Your task to perform on an android device: Open Yahoo.com Image 0: 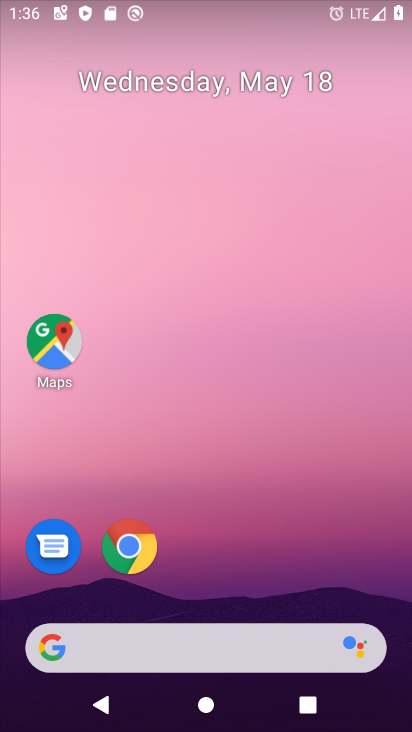
Step 0: drag from (215, 577) to (199, 54)
Your task to perform on an android device: Open Yahoo.com Image 1: 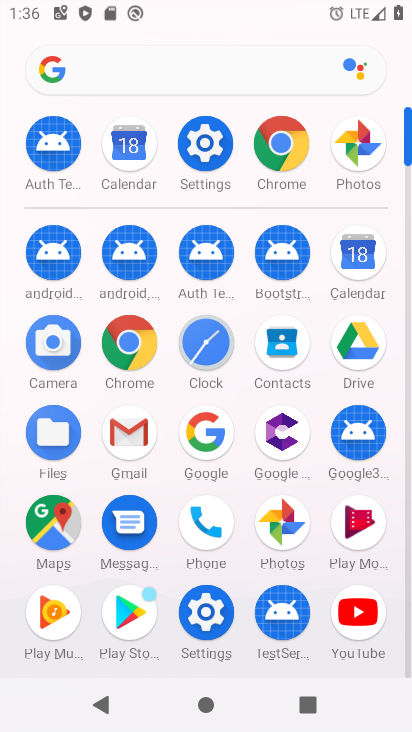
Step 1: click (284, 144)
Your task to perform on an android device: Open Yahoo.com Image 2: 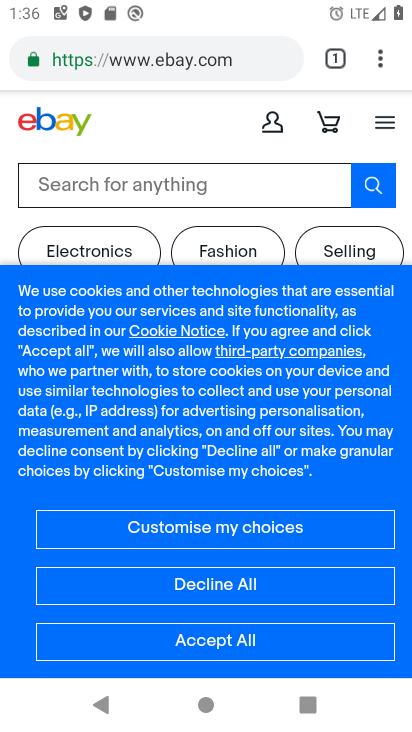
Step 2: click (258, 55)
Your task to perform on an android device: Open Yahoo.com Image 3: 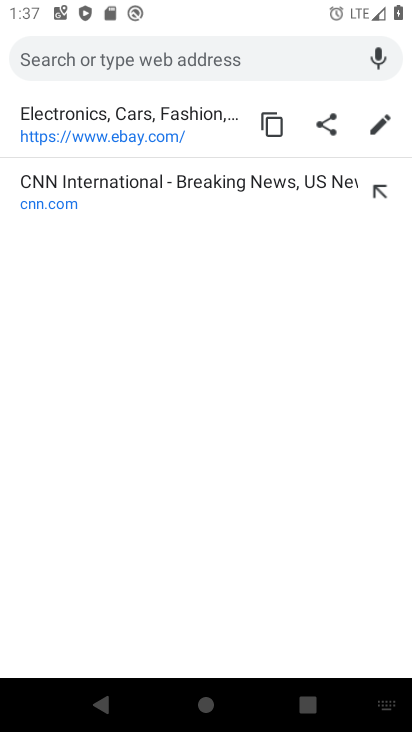
Step 3: type "yahoo"
Your task to perform on an android device: Open Yahoo.com Image 4: 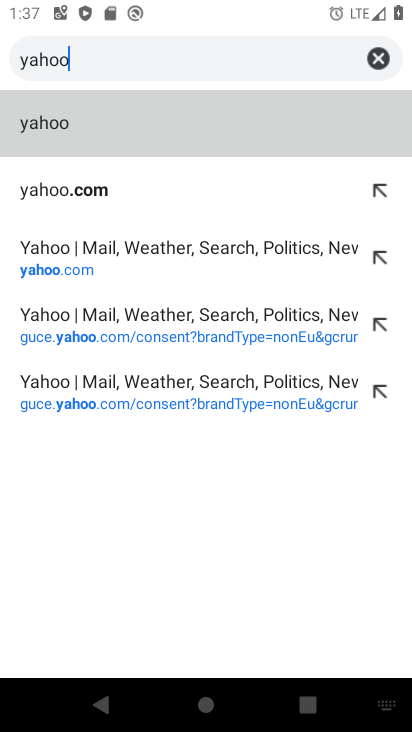
Step 4: click (110, 200)
Your task to perform on an android device: Open Yahoo.com Image 5: 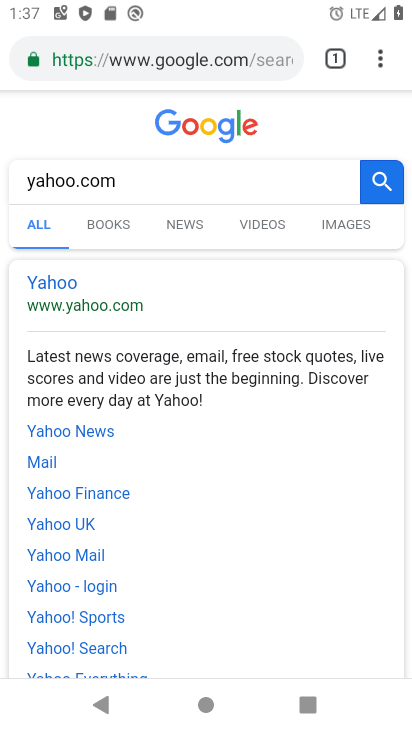
Step 5: click (62, 280)
Your task to perform on an android device: Open Yahoo.com Image 6: 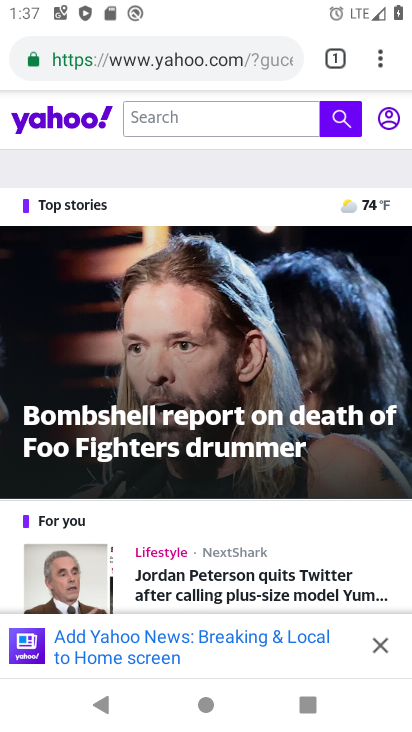
Step 6: task complete